Your task to perform on an android device: Turn on the flashlight Image 0: 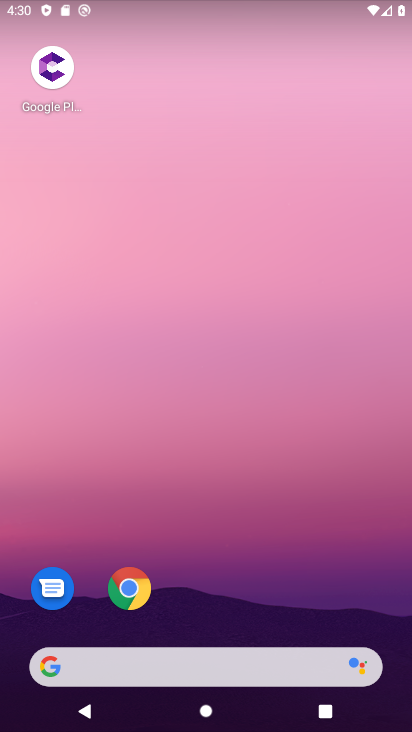
Step 0: drag from (295, 564) to (290, 227)
Your task to perform on an android device: Turn on the flashlight Image 1: 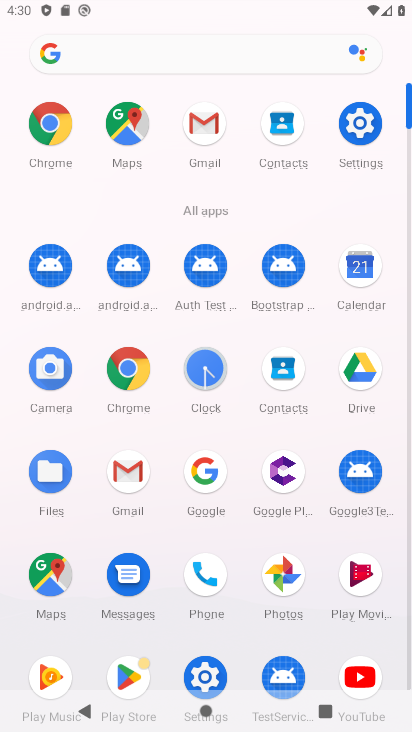
Step 1: click (362, 129)
Your task to perform on an android device: Turn on the flashlight Image 2: 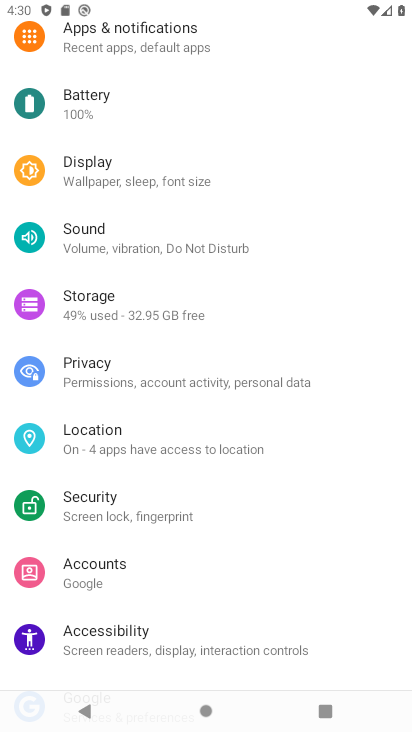
Step 2: task complete